Your task to perform on an android device: Open ESPN.com Image 0: 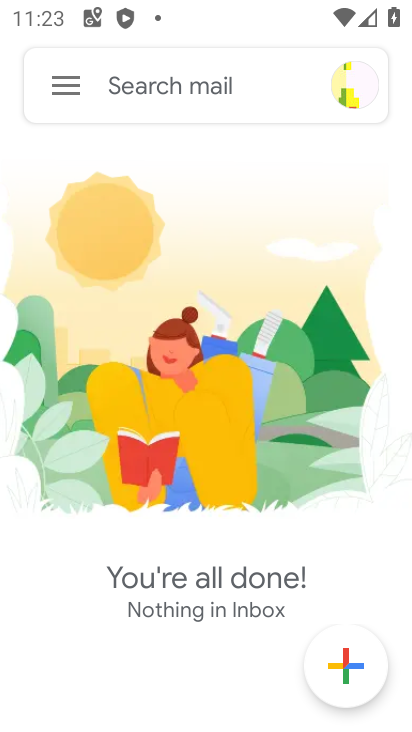
Step 0: press home button
Your task to perform on an android device: Open ESPN.com Image 1: 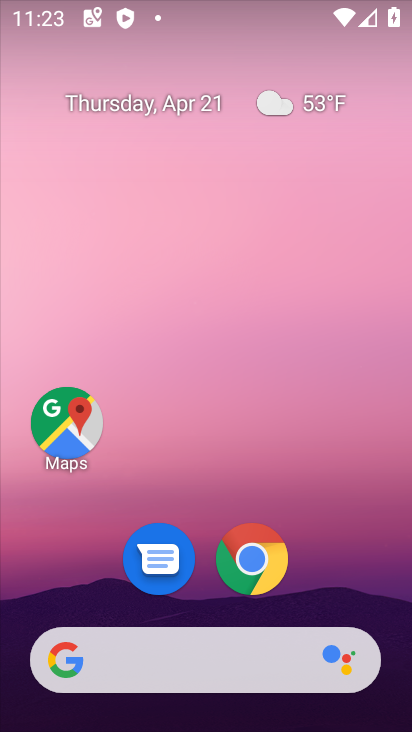
Step 1: click (259, 557)
Your task to perform on an android device: Open ESPN.com Image 2: 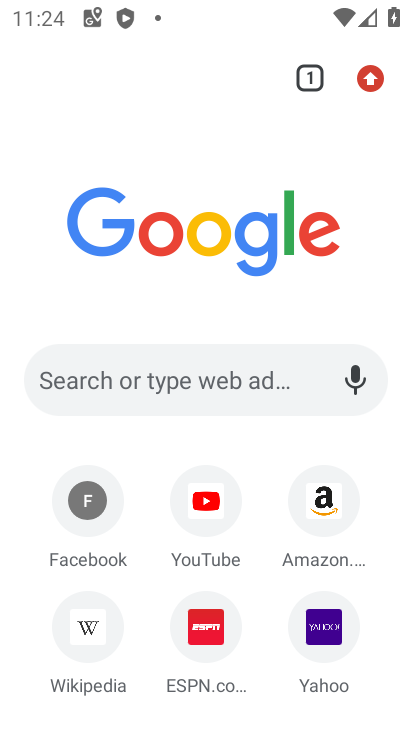
Step 2: click (213, 647)
Your task to perform on an android device: Open ESPN.com Image 3: 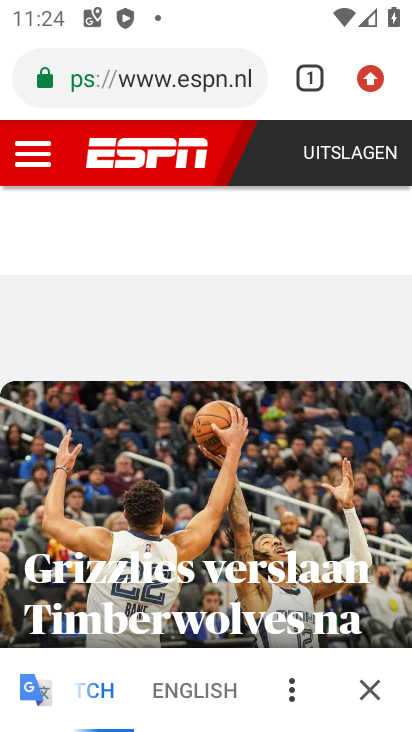
Step 3: task complete